Your task to perform on an android device: Search for vegetarian restaurants on Maps Image 0: 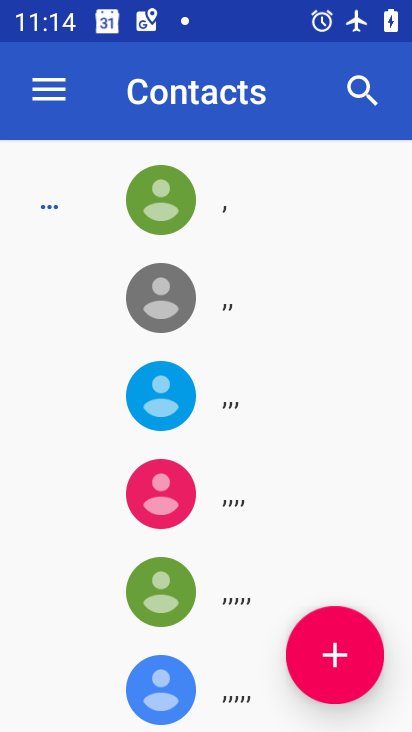
Step 0: press home button
Your task to perform on an android device: Search for vegetarian restaurants on Maps Image 1: 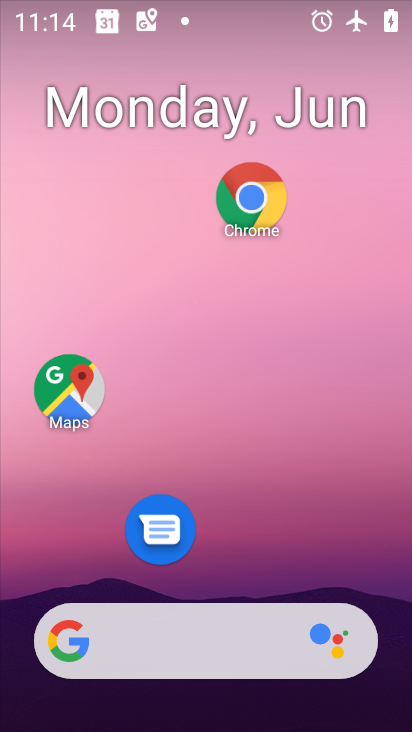
Step 1: click (71, 409)
Your task to perform on an android device: Search for vegetarian restaurants on Maps Image 2: 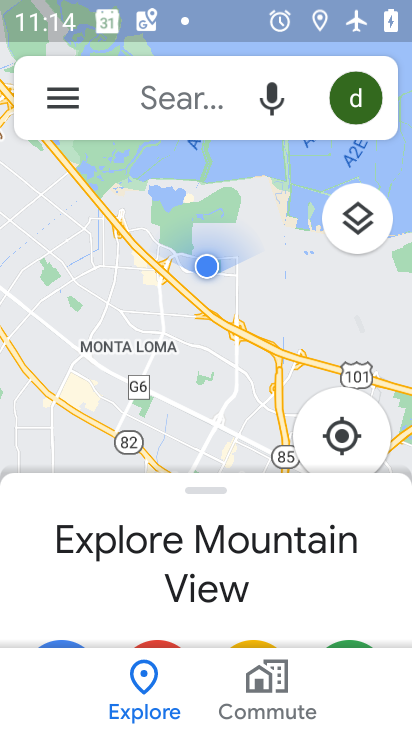
Step 2: click (216, 79)
Your task to perform on an android device: Search for vegetarian restaurants on Maps Image 3: 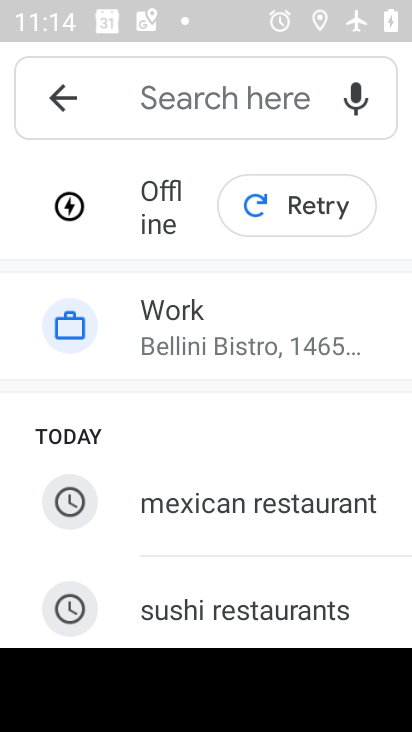
Step 3: drag from (242, 528) to (242, 293)
Your task to perform on an android device: Search for vegetarian restaurants on Maps Image 4: 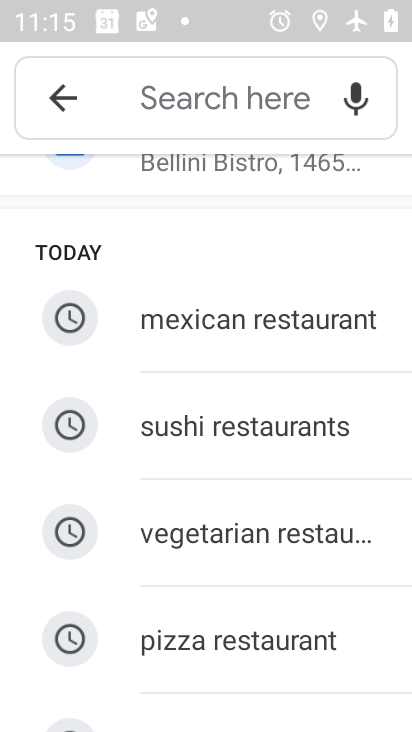
Step 4: click (242, 516)
Your task to perform on an android device: Search for vegetarian restaurants on Maps Image 5: 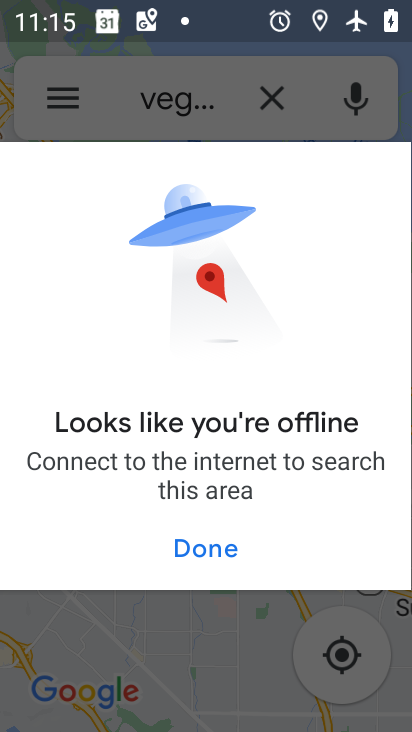
Step 5: task complete